Your task to perform on an android device: Show the shopping cart on walmart.com. Search for "usb-c to usb-b" on walmart.com, select the first entry, add it to the cart, then select checkout. Image 0: 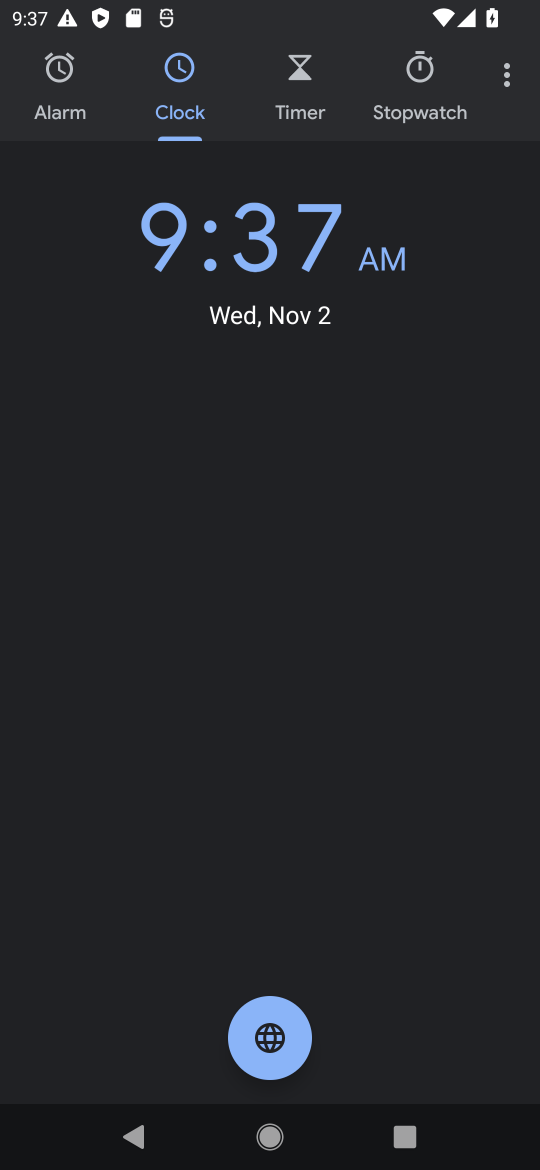
Step 0: press home button
Your task to perform on an android device: Show the shopping cart on walmart.com. Search for "usb-c to usb-b" on walmart.com, select the first entry, add it to the cart, then select checkout. Image 1: 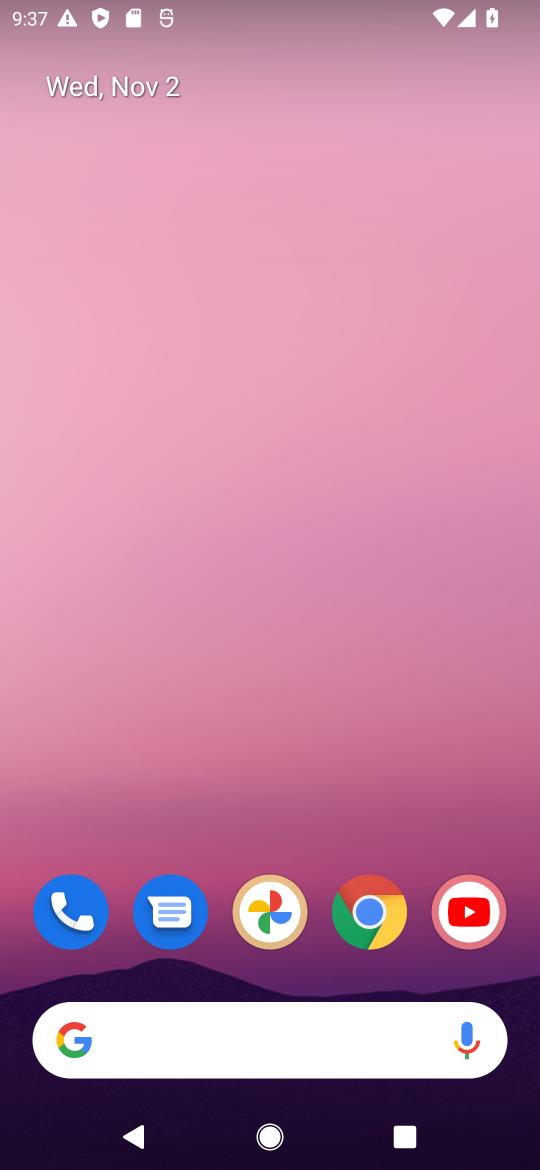
Step 1: drag from (333, 1094) to (211, 205)
Your task to perform on an android device: Show the shopping cart on walmart.com. Search for "usb-c to usb-b" on walmart.com, select the first entry, add it to the cart, then select checkout. Image 2: 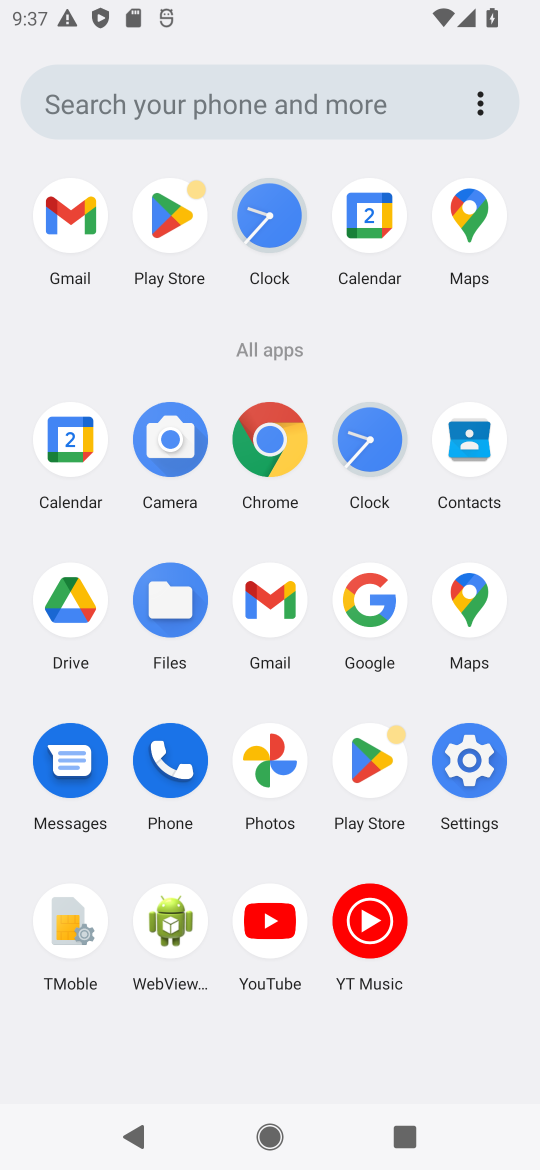
Step 2: click (263, 441)
Your task to perform on an android device: Show the shopping cart on walmart.com. Search for "usb-c to usb-b" on walmart.com, select the first entry, add it to the cart, then select checkout. Image 3: 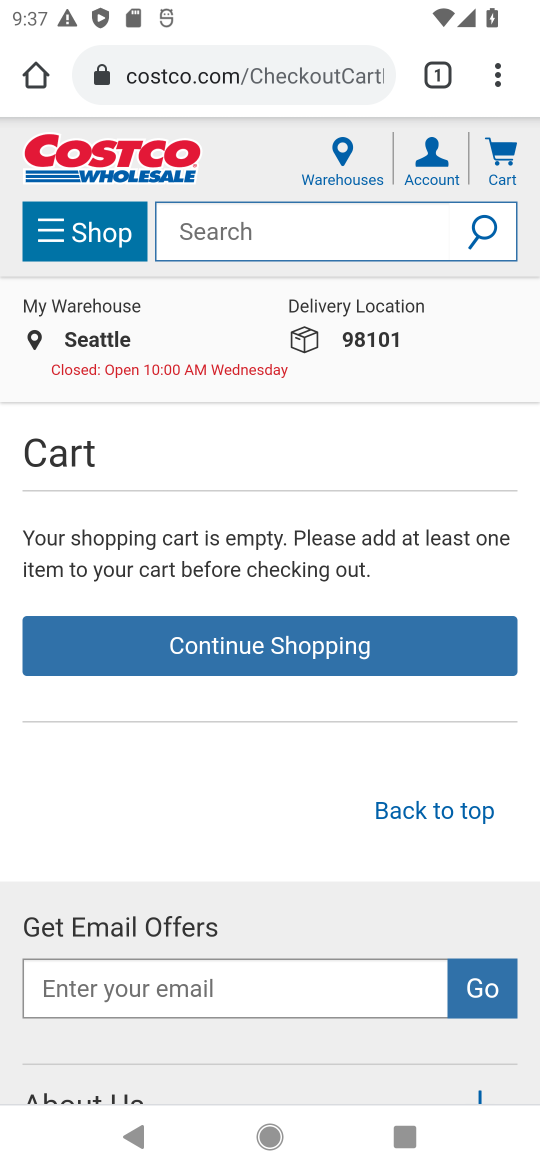
Step 3: click (174, 71)
Your task to perform on an android device: Show the shopping cart on walmart.com. Search for "usb-c to usb-b" on walmart.com, select the first entry, add it to the cart, then select checkout. Image 4: 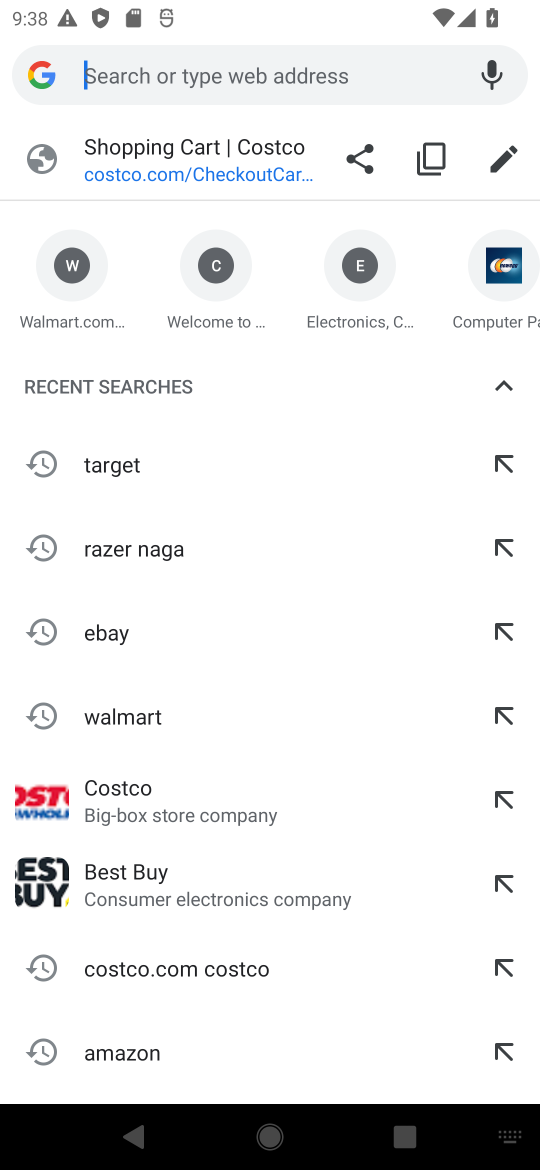
Step 4: type "walmart.com"
Your task to perform on an android device: Show the shopping cart on walmart.com. Search for "usb-c to usb-b" on walmart.com, select the first entry, add it to the cart, then select checkout. Image 5: 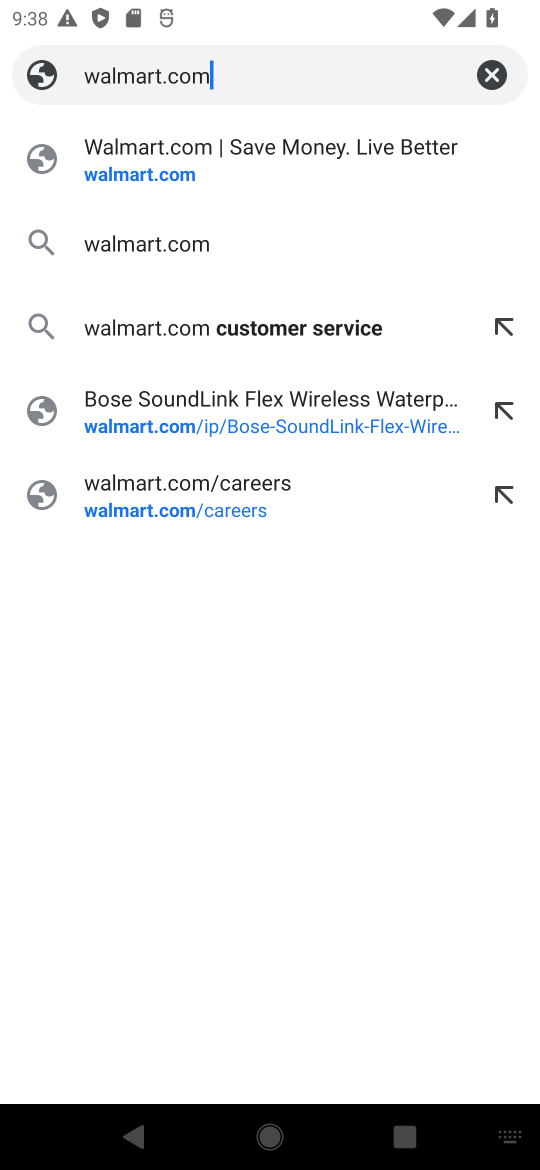
Step 5: click (86, 175)
Your task to perform on an android device: Show the shopping cart on walmart.com. Search for "usb-c to usb-b" on walmart.com, select the first entry, add it to the cart, then select checkout. Image 6: 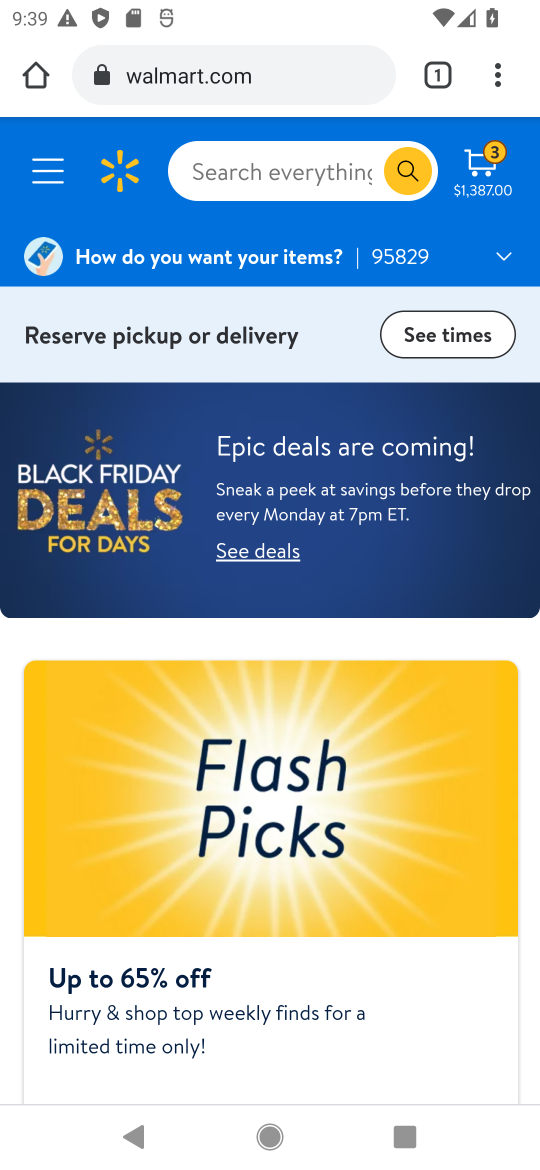
Step 6: click (271, 166)
Your task to perform on an android device: Show the shopping cart on walmart.com. Search for "usb-c to usb-b" on walmart.com, select the first entry, add it to the cart, then select checkout. Image 7: 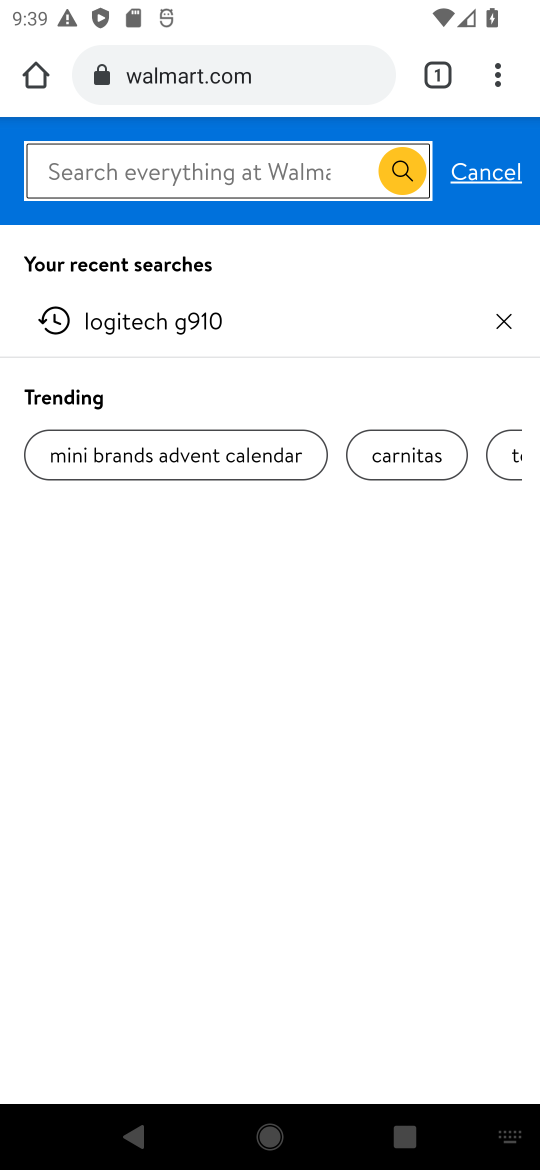
Step 7: type "usb-c to usb-b"
Your task to perform on an android device: Show the shopping cart on walmart.com. Search for "usb-c to usb-b" on walmart.com, select the first entry, add it to the cart, then select checkout. Image 8: 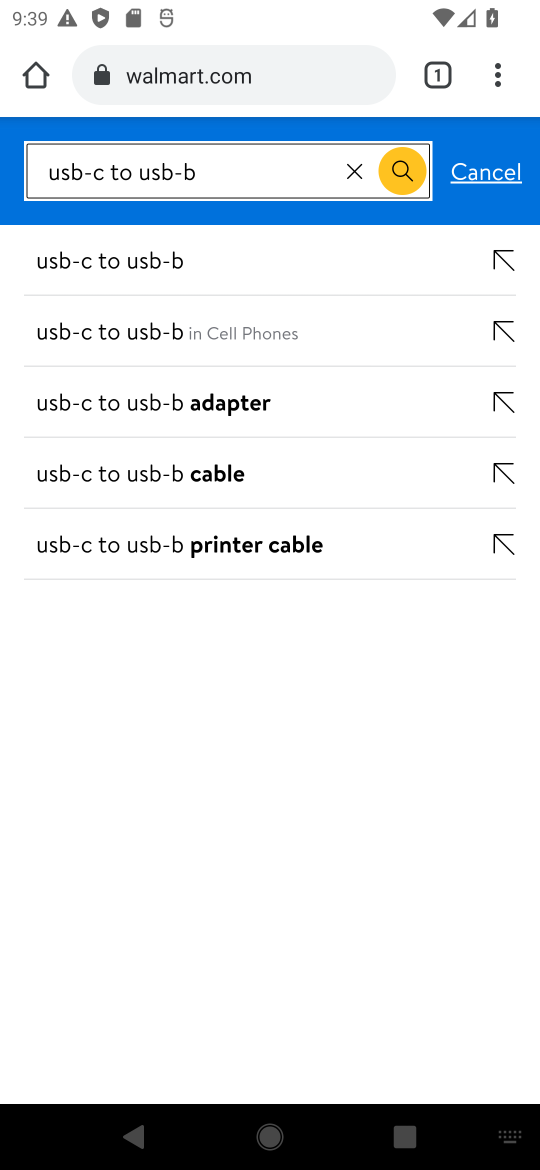
Step 8: click (110, 262)
Your task to perform on an android device: Show the shopping cart on walmart.com. Search for "usb-c to usb-b" on walmart.com, select the first entry, add it to the cart, then select checkout. Image 9: 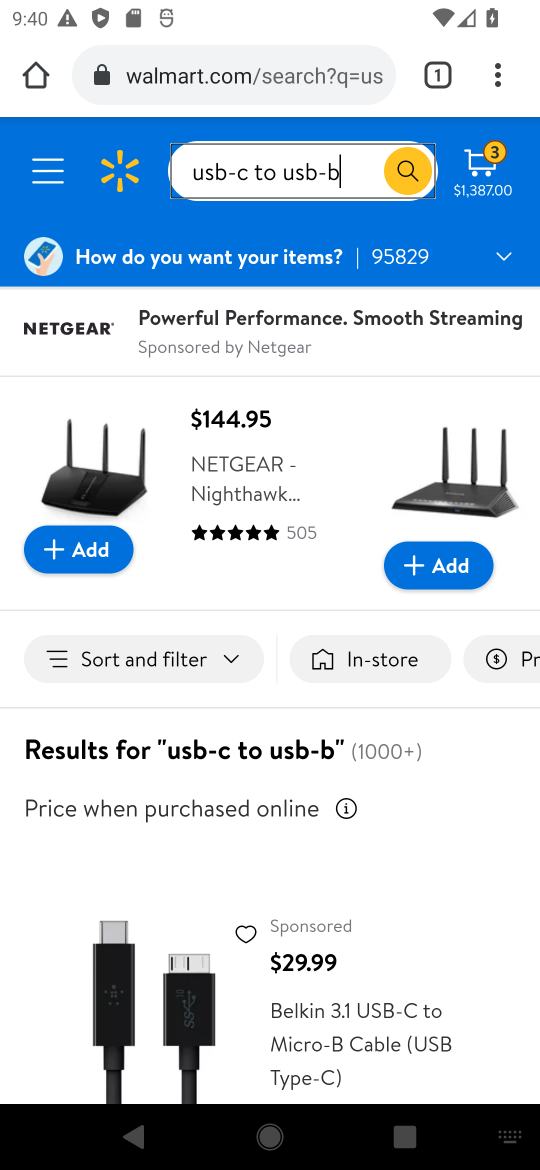
Step 9: click (128, 439)
Your task to perform on an android device: Show the shopping cart on walmart.com. Search for "usb-c to usb-b" on walmart.com, select the first entry, add it to the cart, then select checkout. Image 10: 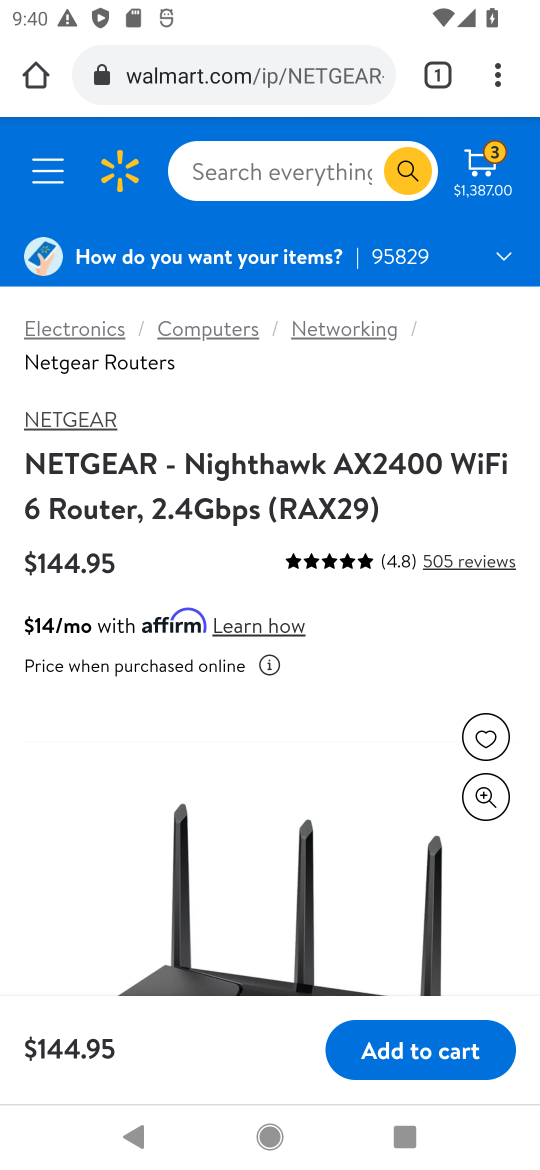
Step 10: click (427, 1046)
Your task to perform on an android device: Show the shopping cart on walmart.com. Search for "usb-c to usb-b" on walmart.com, select the first entry, add it to the cart, then select checkout. Image 11: 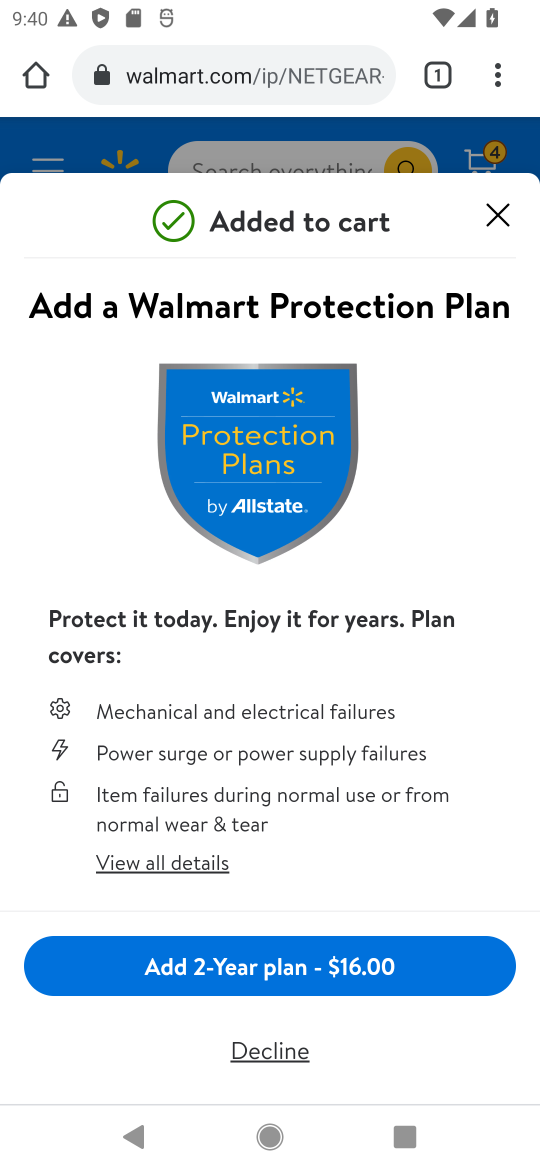
Step 11: task complete